Your task to perform on an android device: Open Youtube and go to "Your channel" Image 0: 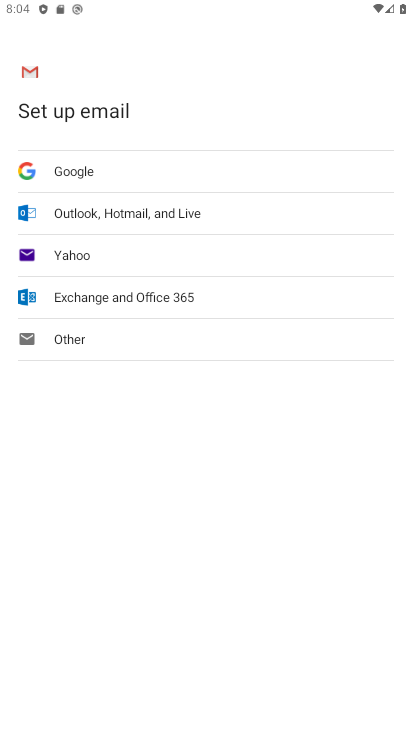
Step 0: press home button
Your task to perform on an android device: Open Youtube and go to "Your channel" Image 1: 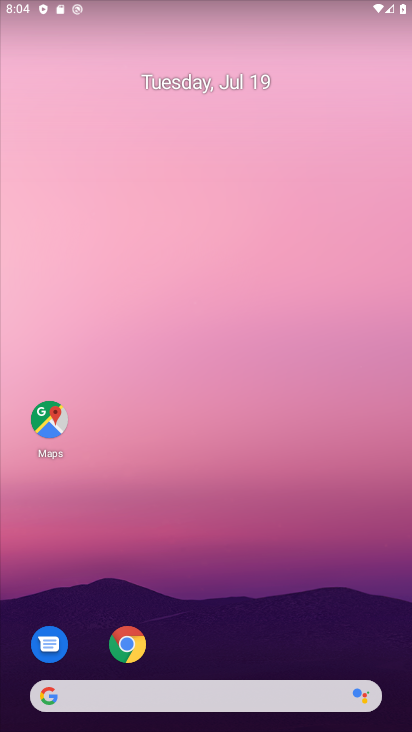
Step 1: drag from (249, 669) to (263, 152)
Your task to perform on an android device: Open Youtube and go to "Your channel" Image 2: 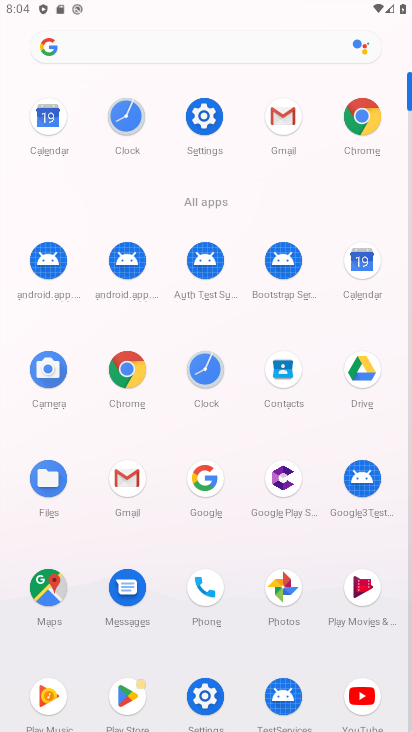
Step 2: click (347, 696)
Your task to perform on an android device: Open Youtube and go to "Your channel" Image 3: 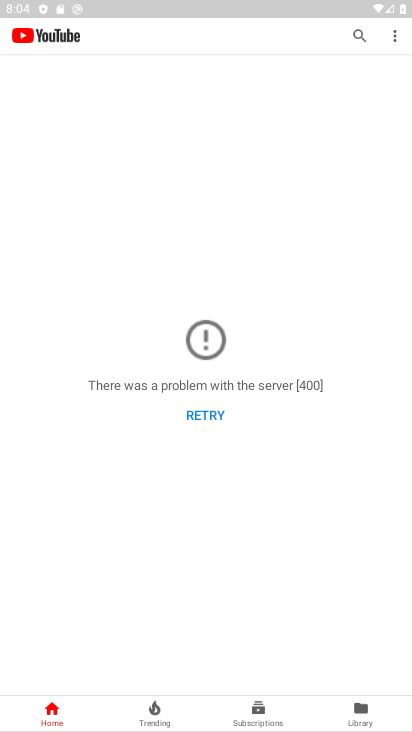
Step 3: click (216, 417)
Your task to perform on an android device: Open Youtube and go to "Your channel" Image 4: 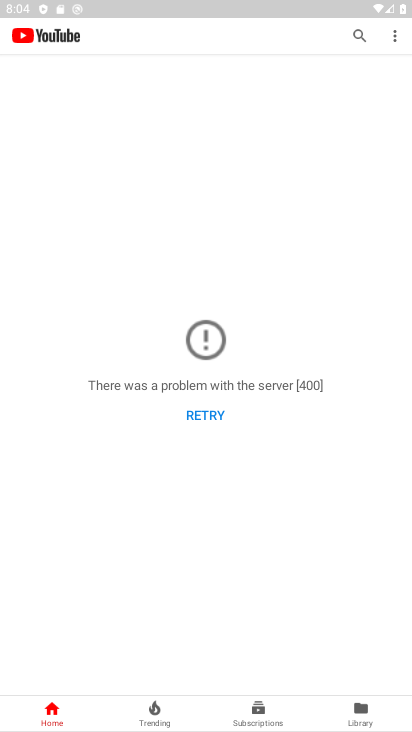
Step 4: click (216, 417)
Your task to perform on an android device: Open Youtube and go to "Your channel" Image 5: 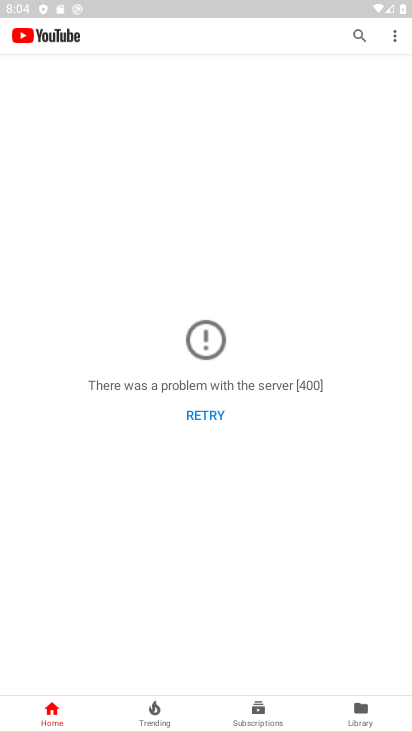
Step 5: task complete